Your task to perform on an android device: Do I have any events tomorrow? Image 0: 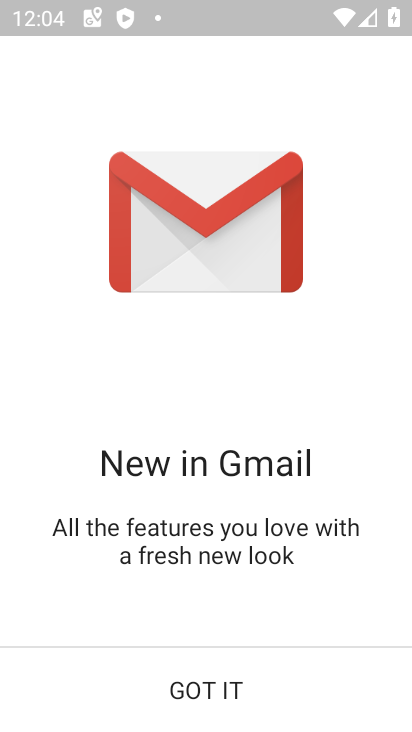
Step 0: press home button
Your task to perform on an android device: Do I have any events tomorrow? Image 1: 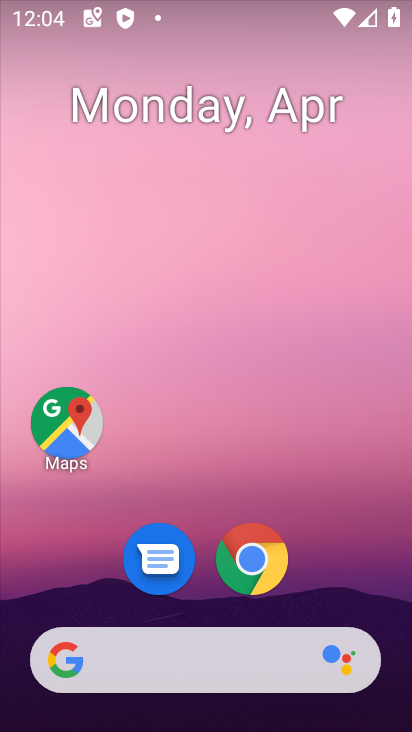
Step 1: drag from (197, 600) to (240, 249)
Your task to perform on an android device: Do I have any events tomorrow? Image 2: 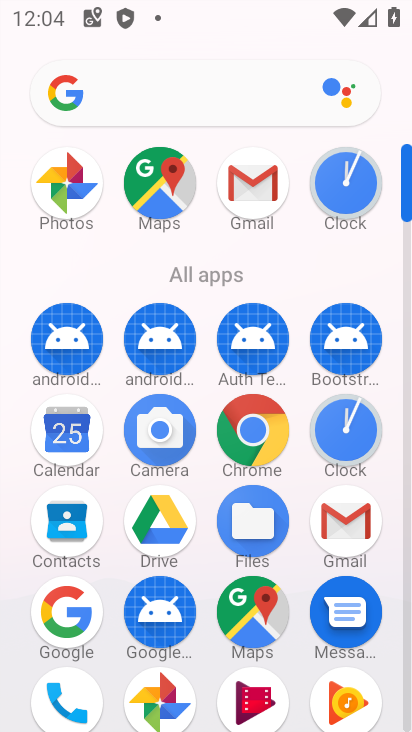
Step 2: click (67, 445)
Your task to perform on an android device: Do I have any events tomorrow? Image 3: 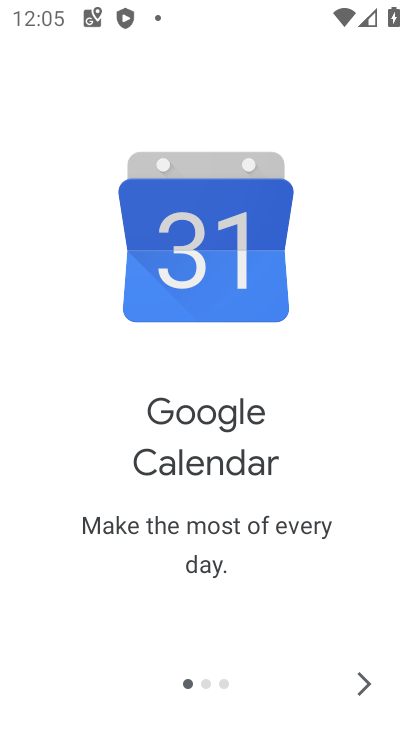
Step 3: click (367, 687)
Your task to perform on an android device: Do I have any events tomorrow? Image 4: 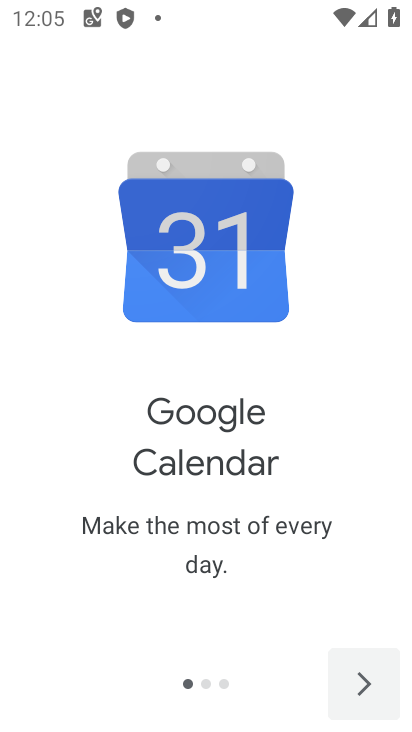
Step 4: click (367, 687)
Your task to perform on an android device: Do I have any events tomorrow? Image 5: 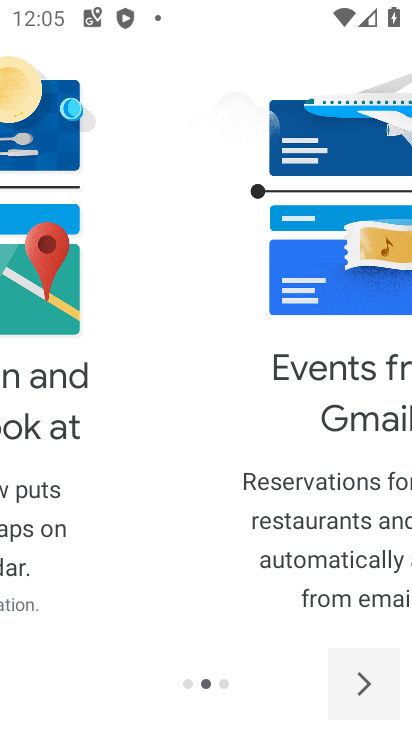
Step 5: click (367, 687)
Your task to perform on an android device: Do I have any events tomorrow? Image 6: 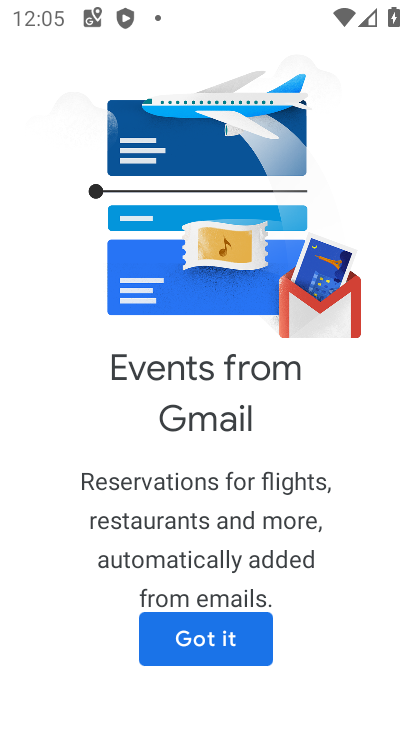
Step 6: click (217, 646)
Your task to perform on an android device: Do I have any events tomorrow? Image 7: 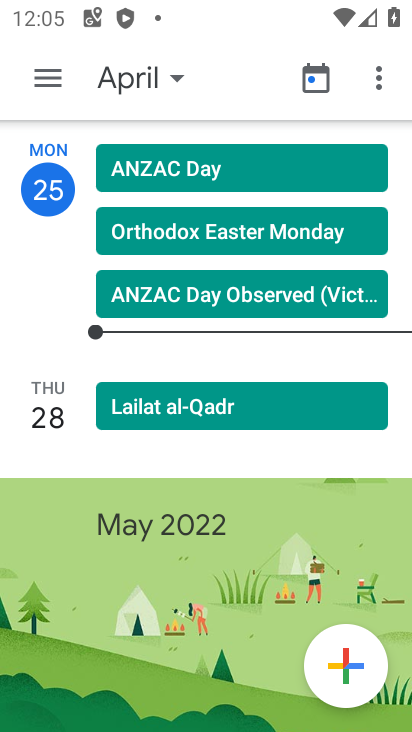
Step 7: click (159, 75)
Your task to perform on an android device: Do I have any events tomorrow? Image 8: 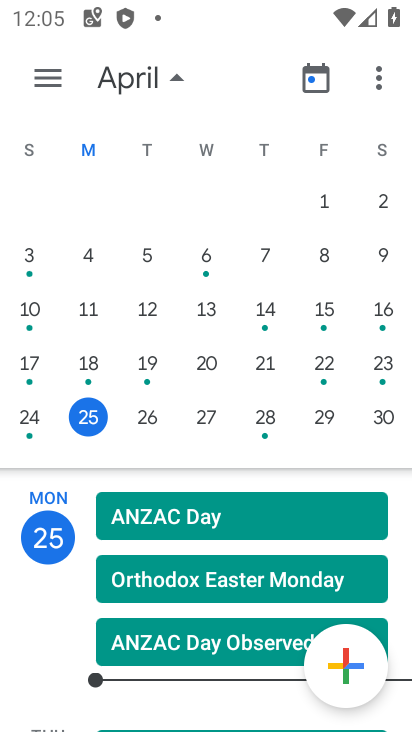
Step 8: click (136, 422)
Your task to perform on an android device: Do I have any events tomorrow? Image 9: 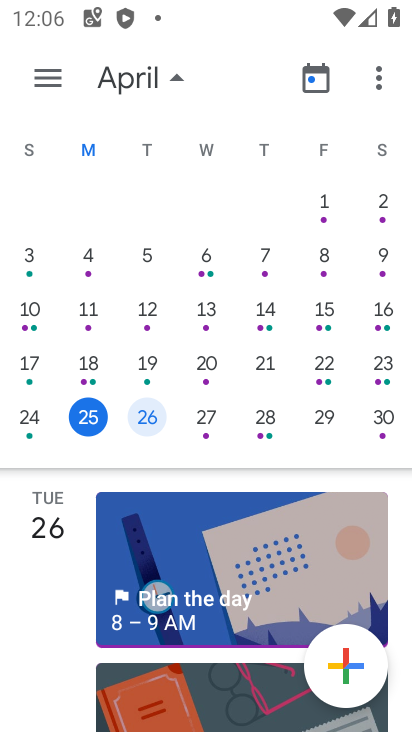
Step 9: click (148, 411)
Your task to perform on an android device: Do I have any events tomorrow? Image 10: 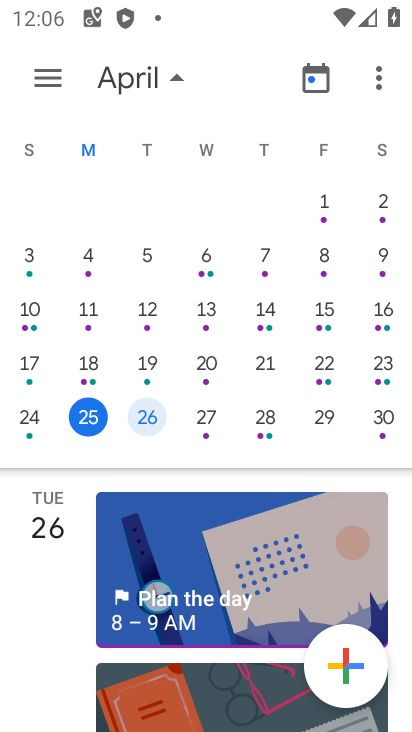
Step 10: task complete